Your task to perform on an android device: toggle notification dots Image 0: 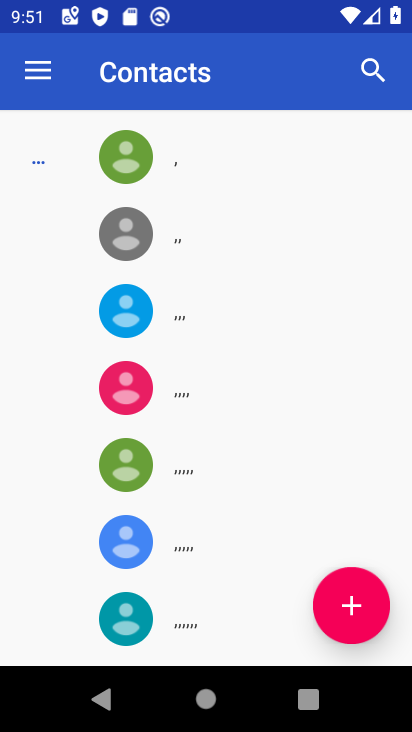
Step 0: press home button
Your task to perform on an android device: toggle notification dots Image 1: 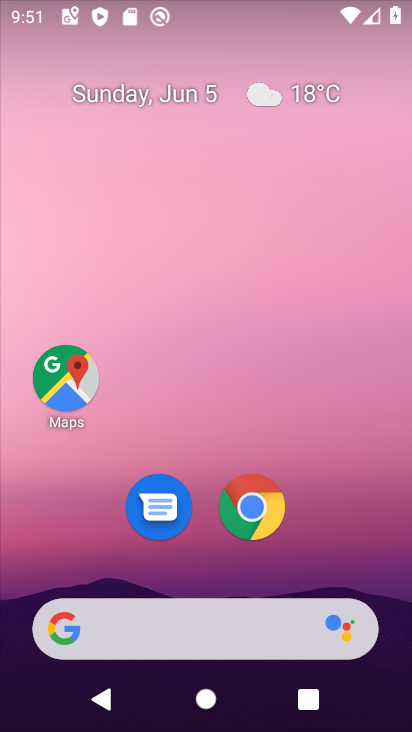
Step 1: drag from (234, 572) to (367, 22)
Your task to perform on an android device: toggle notification dots Image 2: 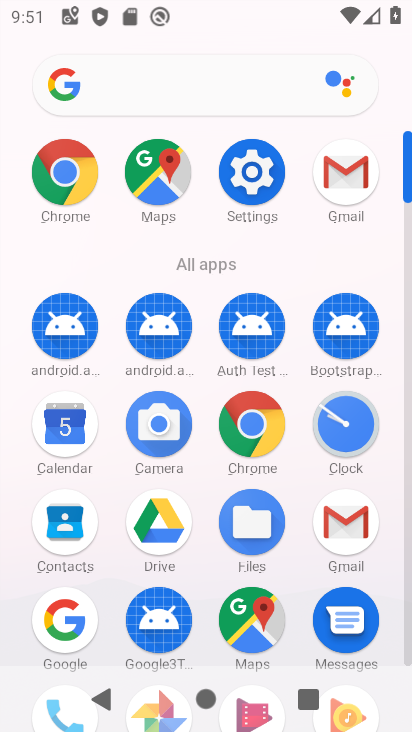
Step 2: click (255, 198)
Your task to perform on an android device: toggle notification dots Image 3: 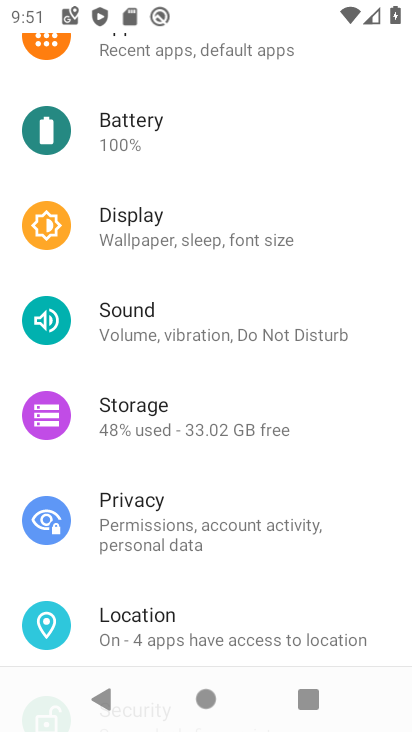
Step 3: drag from (225, 205) to (203, 372)
Your task to perform on an android device: toggle notification dots Image 4: 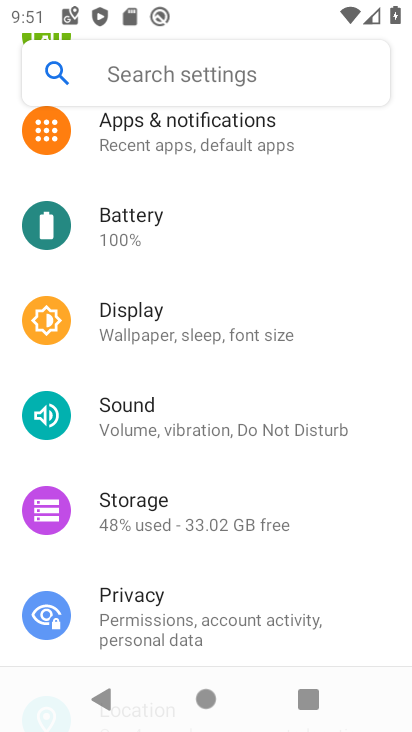
Step 4: click (212, 132)
Your task to perform on an android device: toggle notification dots Image 5: 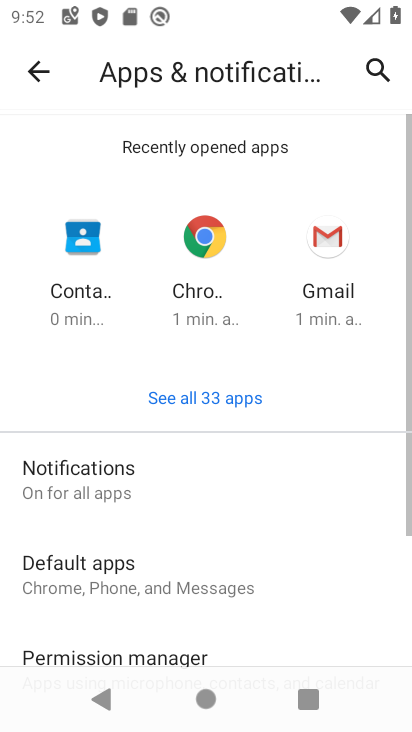
Step 5: click (106, 478)
Your task to perform on an android device: toggle notification dots Image 6: 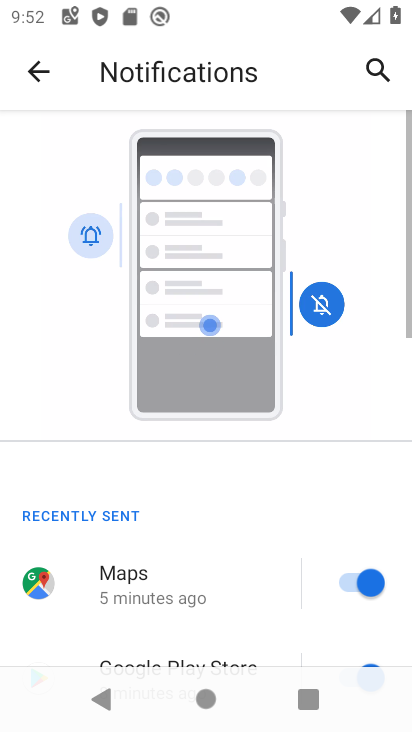
Step 6: drag from (183, 598) to (302, 131)
Your task to perform on an android device: toggle notification dots Image 7: 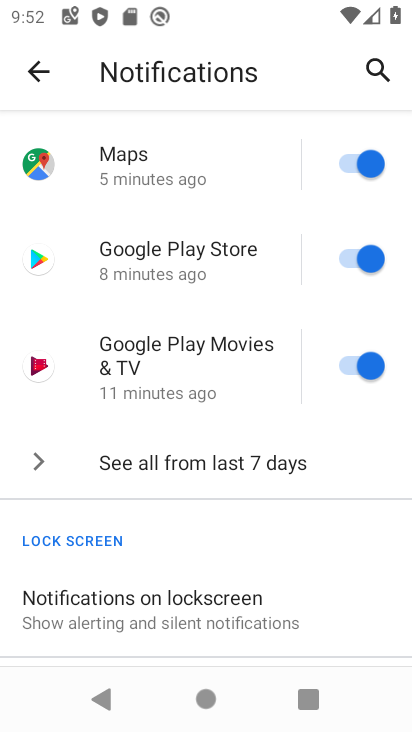
Step 7: drag from (183, 565) to (277, 97)
Your task to perform on an android device: toggle notification dots Image 8: 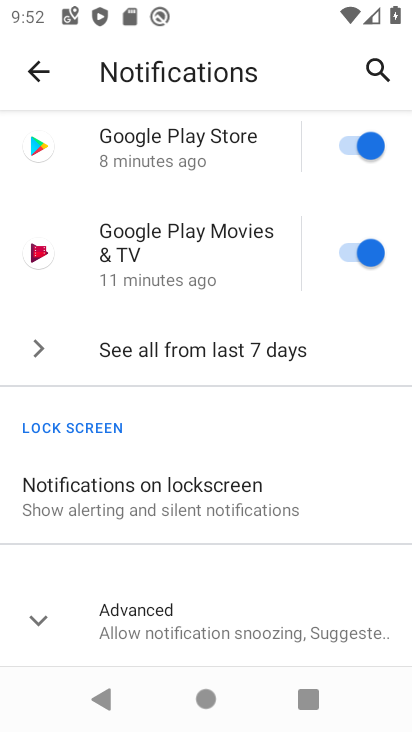
Step 8: click (160, 631)
Your task to perform on an android device: toggle notification dots Image 9: 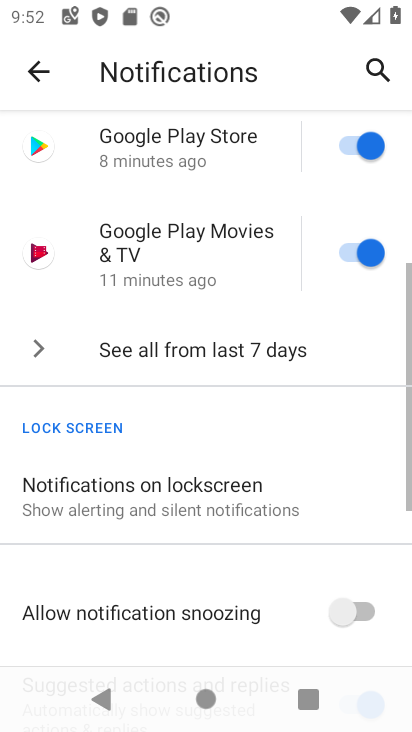
Step 9: drag from (215, 630) to (243, 331)
Your task to perform on an android device: toggle notification dots Image 10: 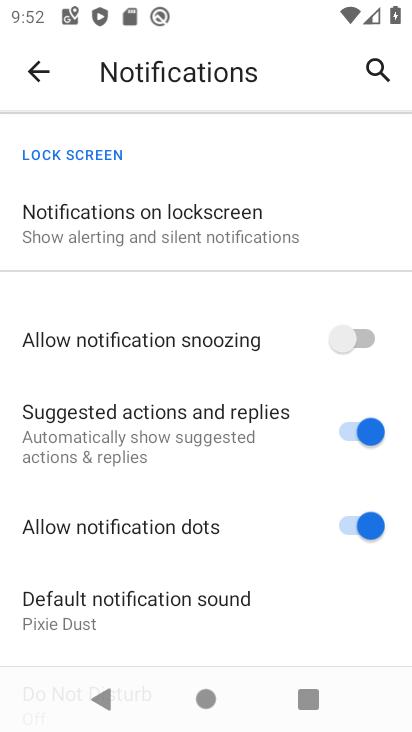
Step 10: click (346, 508)
Your task to perform on an android device: toggle notification dots Image 11: 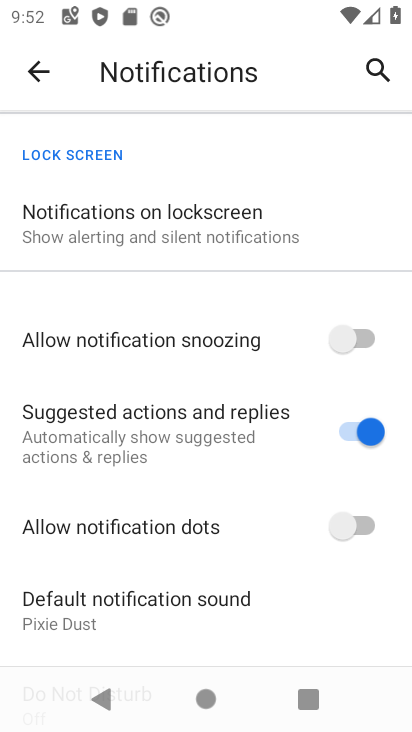
Step 11: task complete